Your task to perform on an android device: move an email to a new category in the gmail app Image 0: 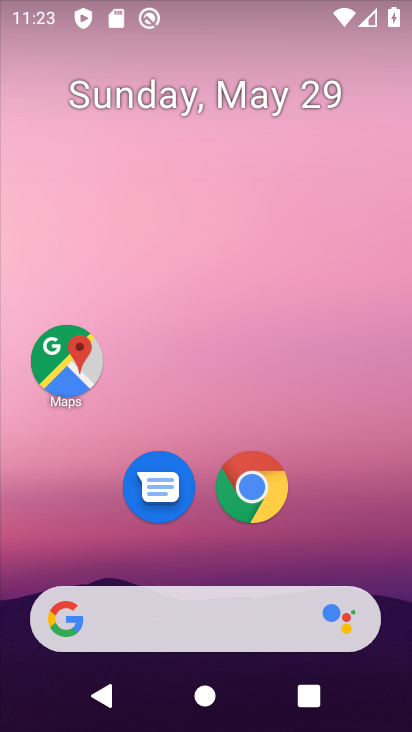
Step 0: drag from (202, 722) to (170, 196)
Your task to perform on an android device: move an email to a new category in the gmail app Image 1: 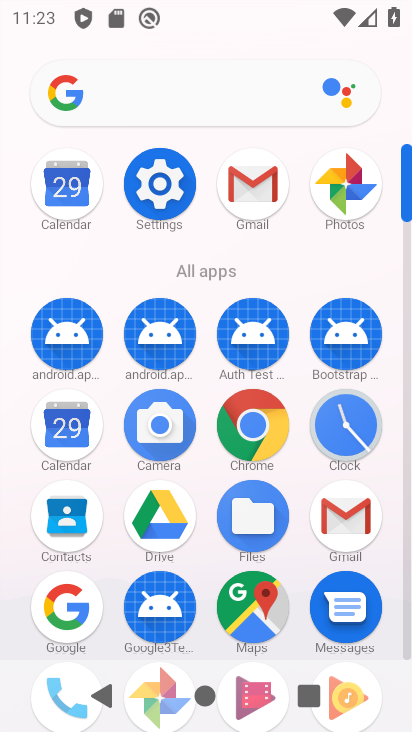
Step 1: click (342, 530)
Your task to perform on an android device: move an email to a new category in the gmail app Image 2: 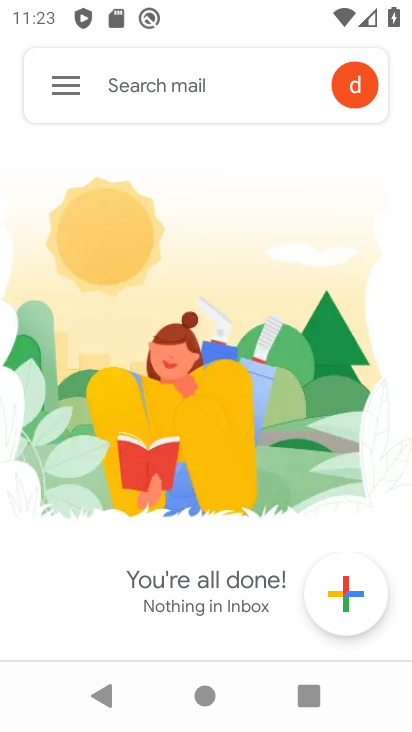
Step 2: click (61, 94)
Your task to perform on an android device: move an email to a new category in the gmail app Image 3: 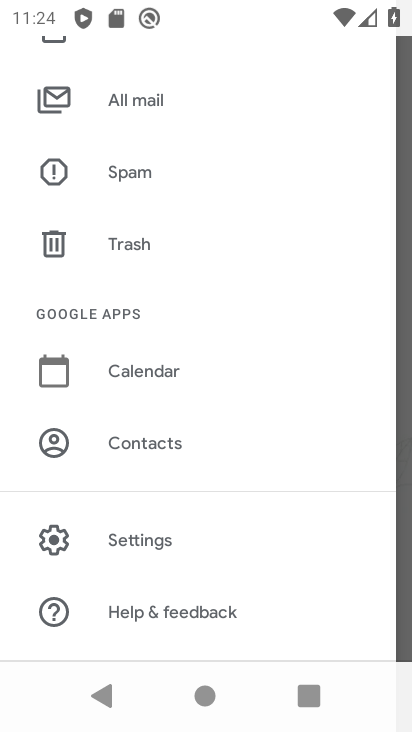
Step 3: drag from (161, 128) to (178, 576)
Your task to perform on an android device: move an email to a new category in the gmail app Image 4: 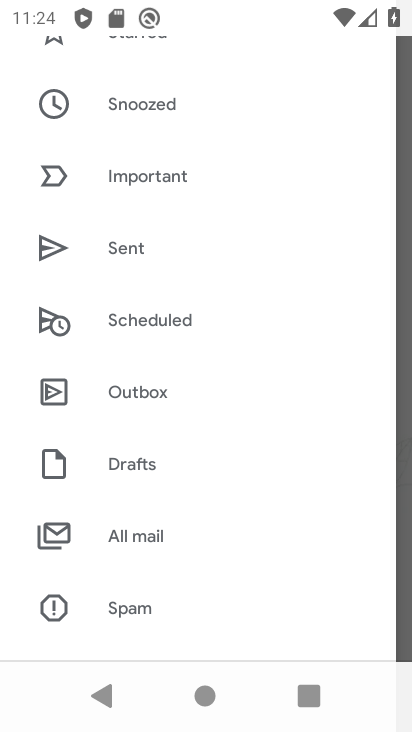
Step 4: drag from (172, 114) to (170, 562)
Your task to perform on an android device: move an email to a new category in the gmail app Image 5: 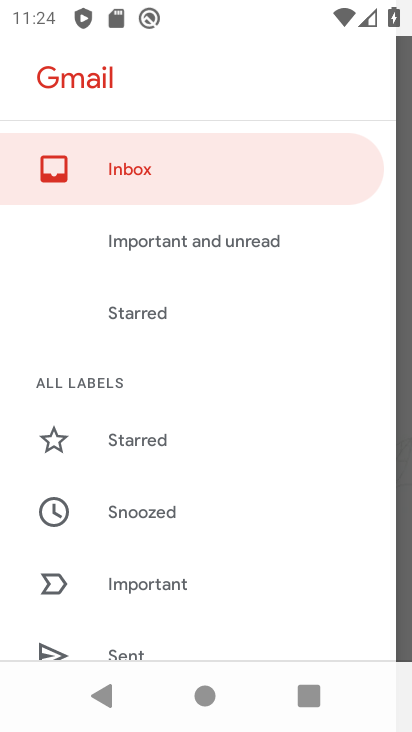
Step 5: click (129, 170)
Your task to perform on an android device: move an email to a new category in the gmail app Image 6: 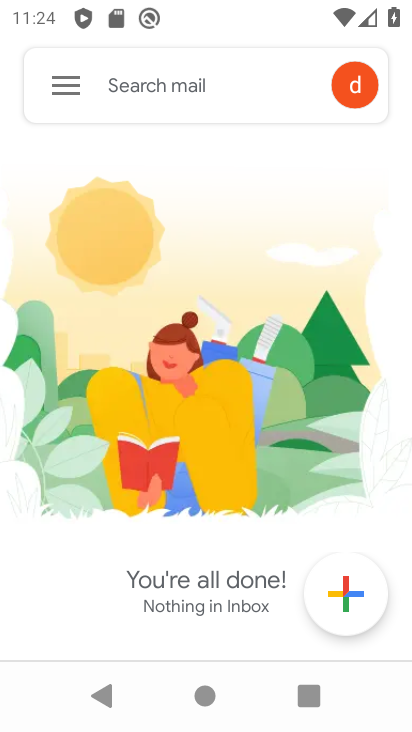
Step 6: task complete